Your task to perform on an android device: Open Yahoo.com Image 0: 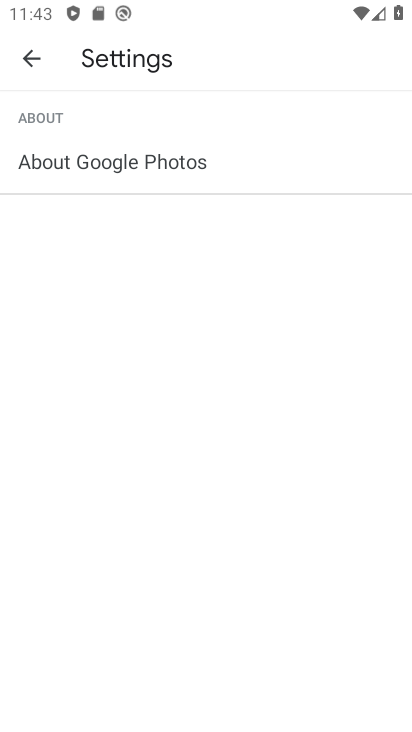
Step 0: press back button
Your task to perform on an android device: Open Yahoo.com Image 1: 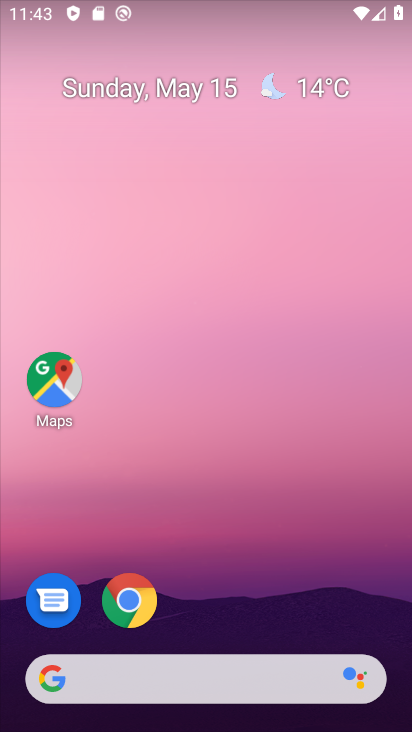
Step 1: drag from (197, 429) to (152, 7)
Your task to perform on an android device: Open Yahoo.com Image 2: 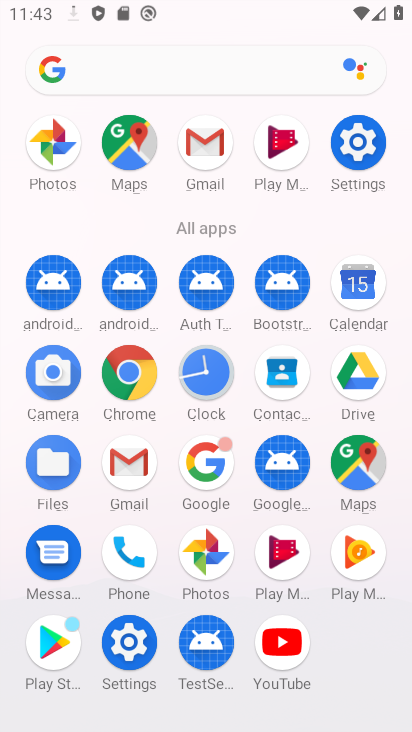
Step 2: click (127, 371)
Your task to perform on an android device: Open Yahoo.com Image 3: 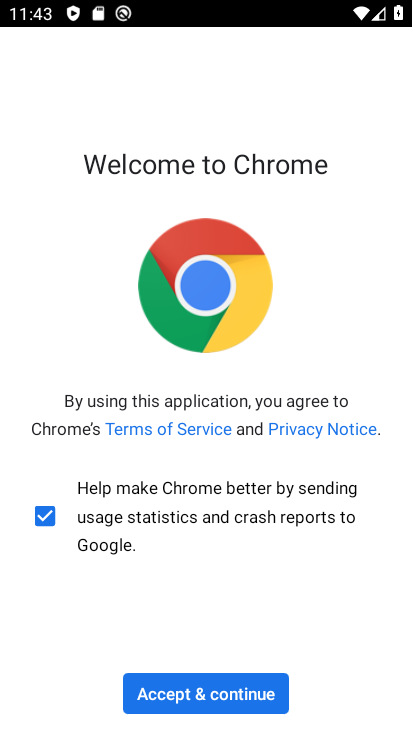
Step 3: click (202, 689)
Your task to perform on an android device: Open Yahoo.com Image 4: 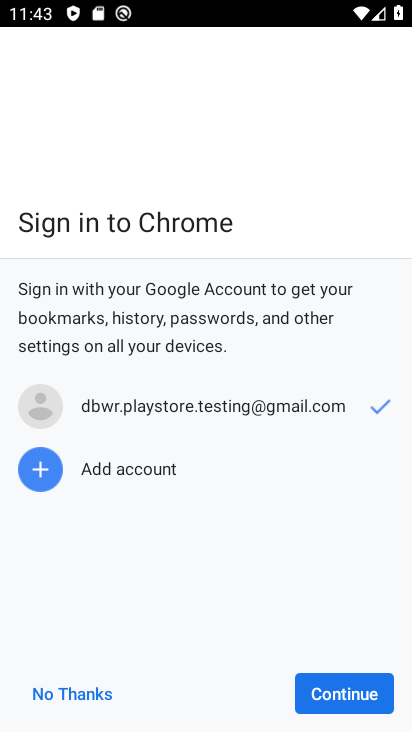
Step 4: click (316, 699)
Your task to perform on an android device: Open Yahoo.com Image 5: 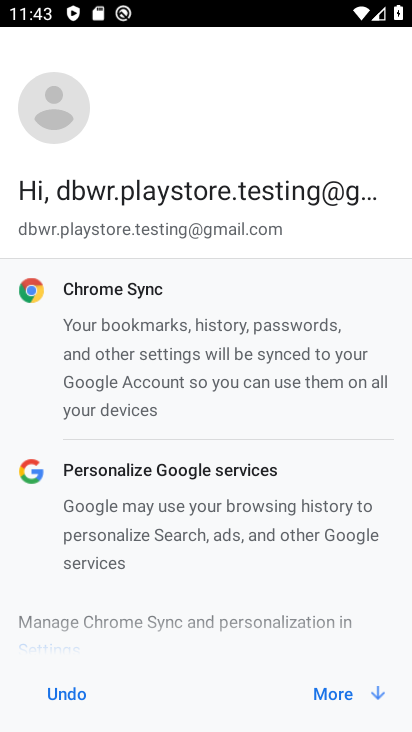
Step 5: click (319, 691)
Your task to perform on an android device: Open Yahoo.com Image 6: 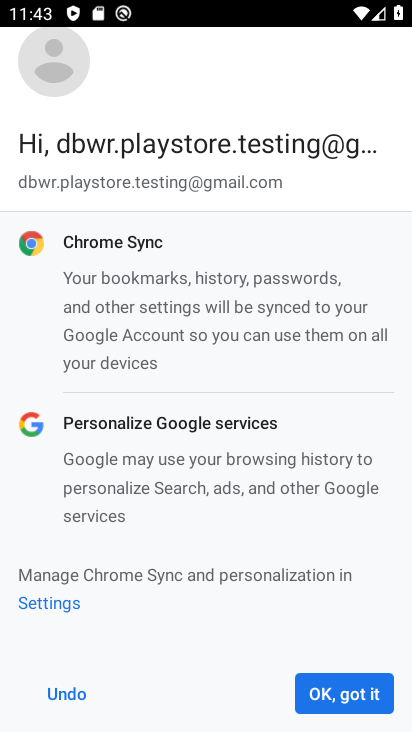
Step 6: click (319, 691)
Your task to perform on an android device: Open Yahoo.com Image 7: 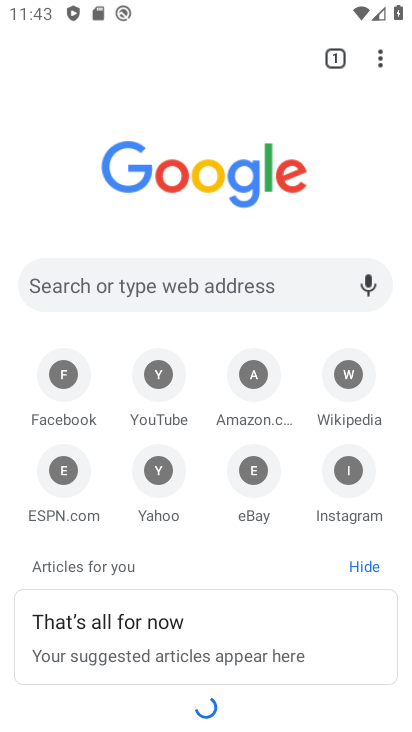
Step 7: click (160, 283)
Your task to perform on an android device: Open Yahoo.com Image 8: 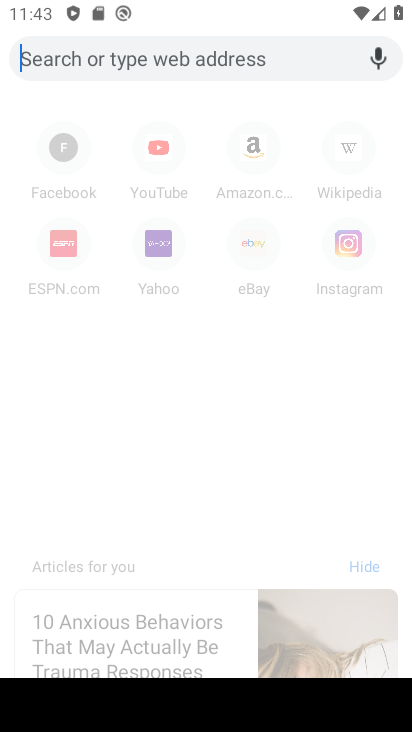
Step 8: click (152, 251)
Your task to perform on an android device: Open Yahoo.com Image 9: 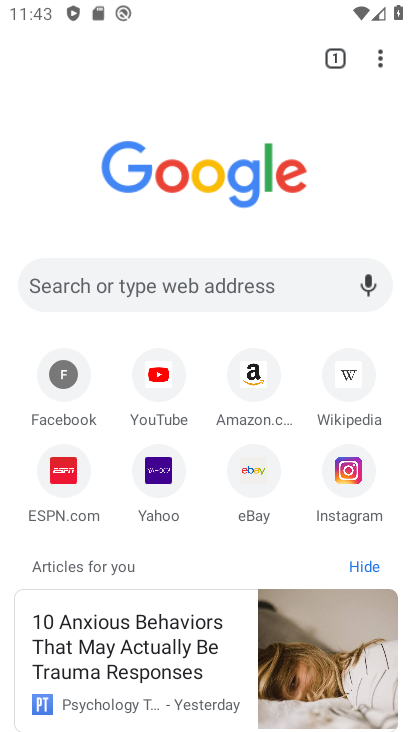
Step 9: click (153, 465)
Your task to perform on an android device: Open Yahoo.com Image 10: 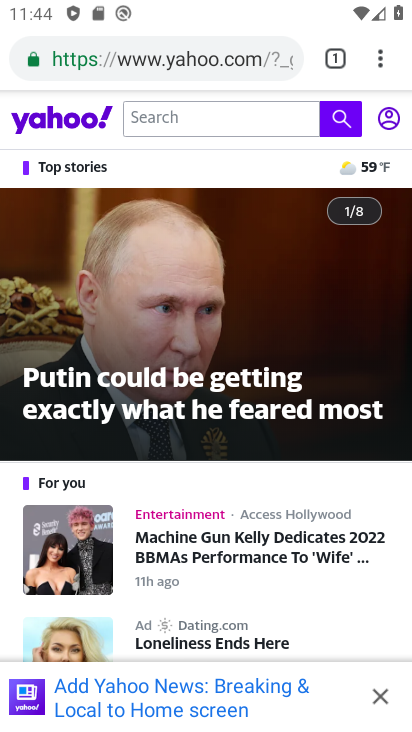
Step 10: task complete